Your task to perform on an android device: set an alarm Image 0: 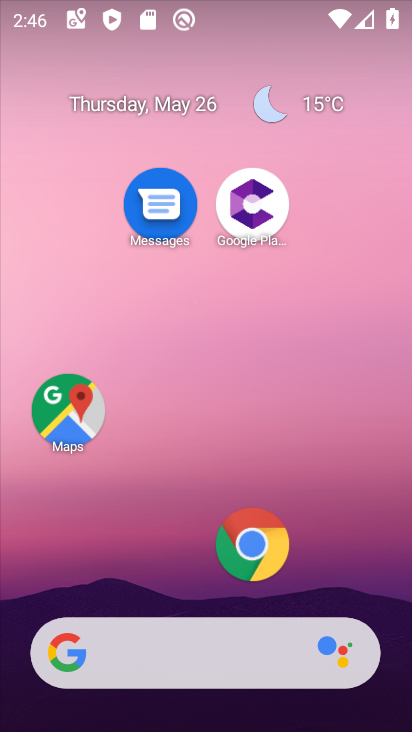
Step 0: drag from (178, 584) to (171, 92)
Your task to perform on an android device: set an alarm Image 1: 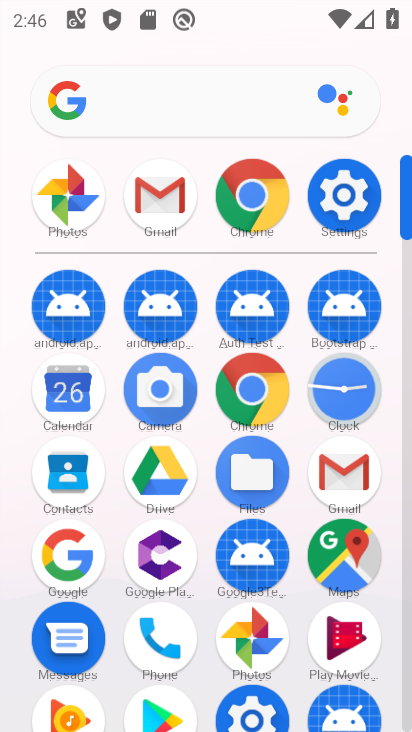
Step 1: click (360, 403)
Your task to perform on an android device: set an alarm Image 2: 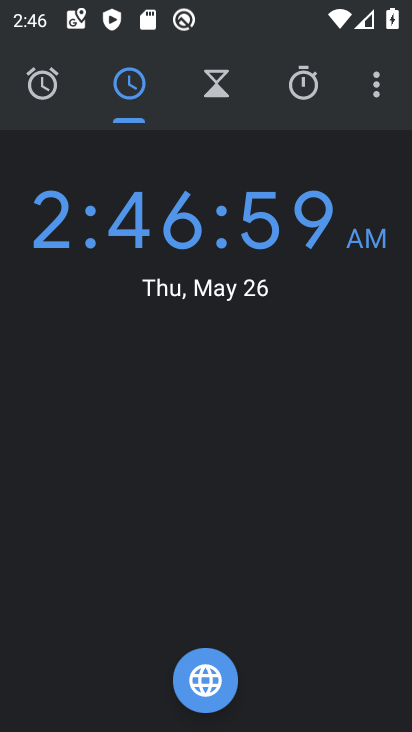
Step 2: click (53, 99)
Your task to perform on an android device: set an alarm Image 3: 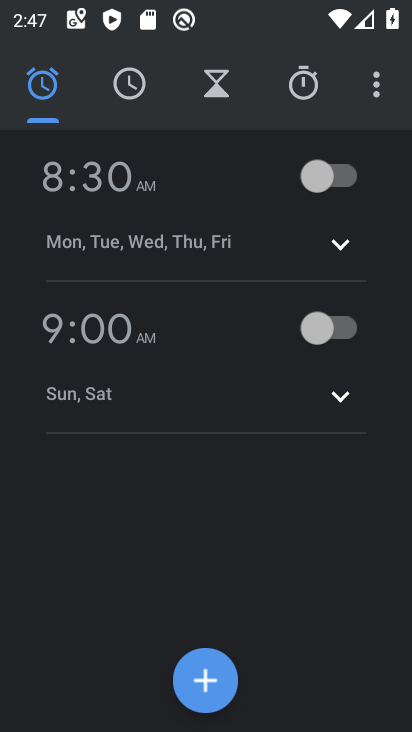
Step 3: click (345, 190)
Your task to perform on an android device: set an alarm Image 4: 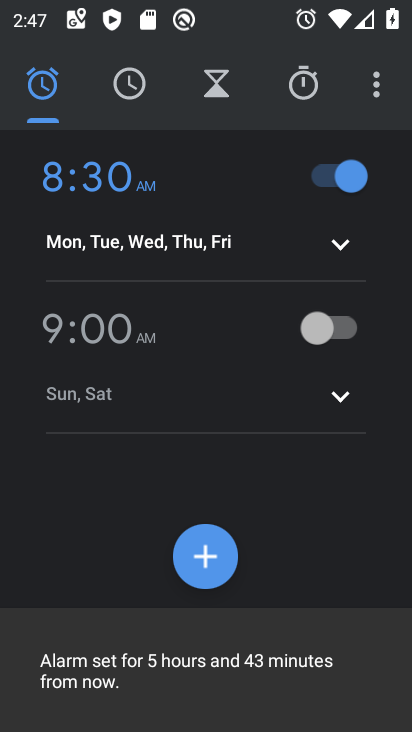
Step 4: task complete